Your task to perform on an android device: check the backup settings in the google photos Image 0: 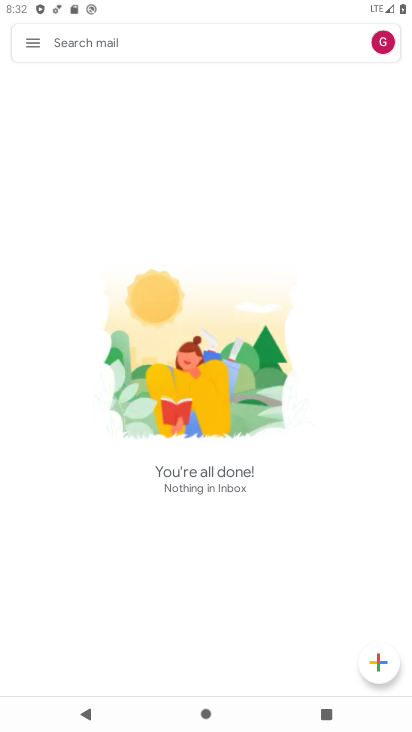
Step 0: press home button
Your task to perform on an android device: check the backup settings in the google photos Image 1: 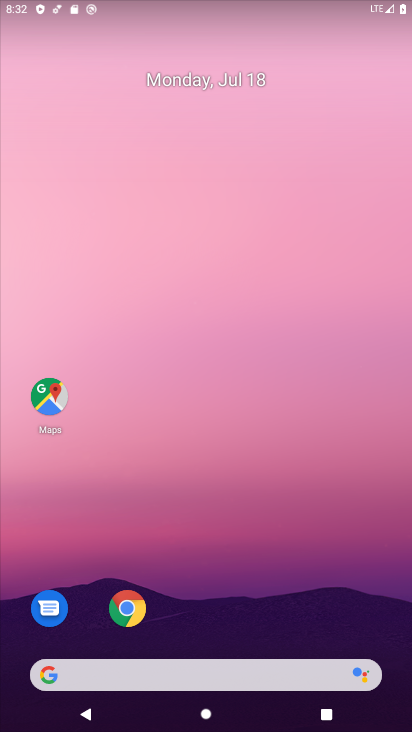
Step 1: drag from (253, 629) to (251, 188)
Your task to perform on an android device: check the backup settings in the google photos Image 2: 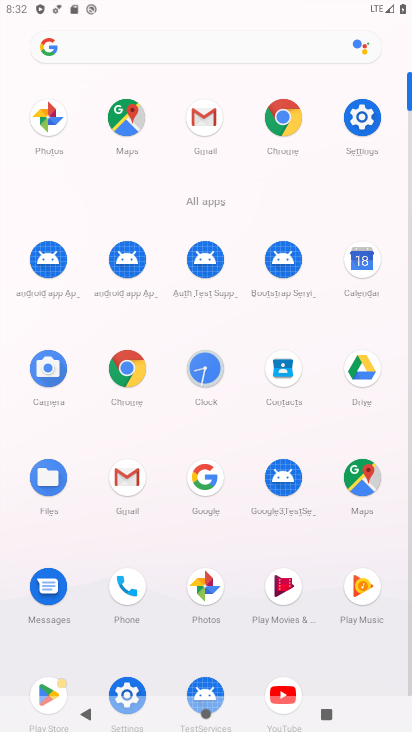
Step 2: click (49, 114)
Your task to perform on an android device: check the backup settings in the google photos Image 3: 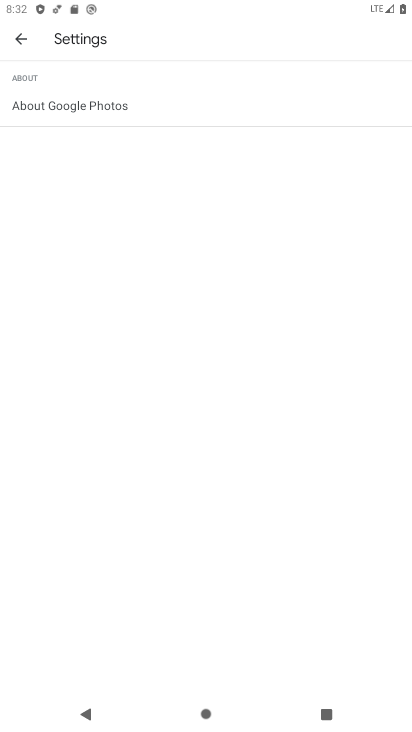
Step 3: click (21, 43)
Your task to perform on an android device: check the backup settings in the google photos Image 4: 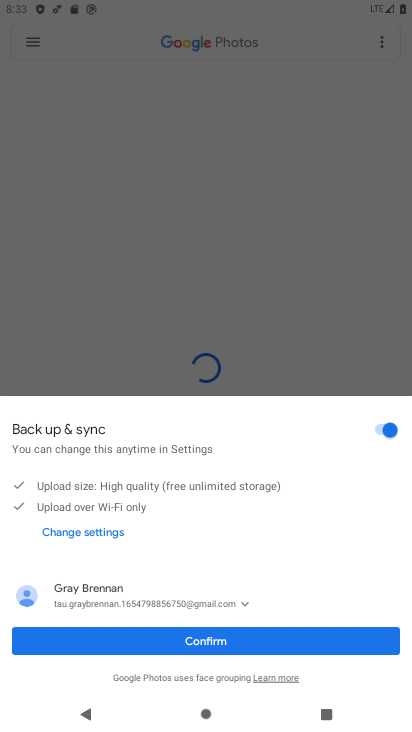
Step 4: click (240, 641)
Your task to perform on an android device: check the backup settings in the google photos Image 5: 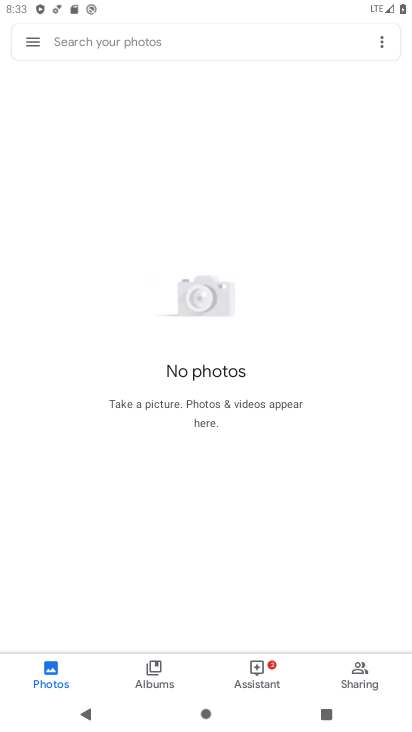
Step 5: click (29, 40)
Your task to perform on an android device: check the backup settings in the google photos Image 6: 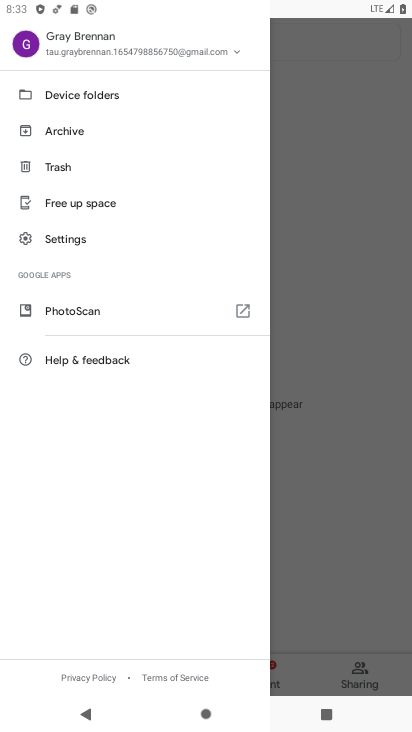
Step 6: click (104, 245)
Your task to perform on an android device: check the backup settings in the google photos Image 7: 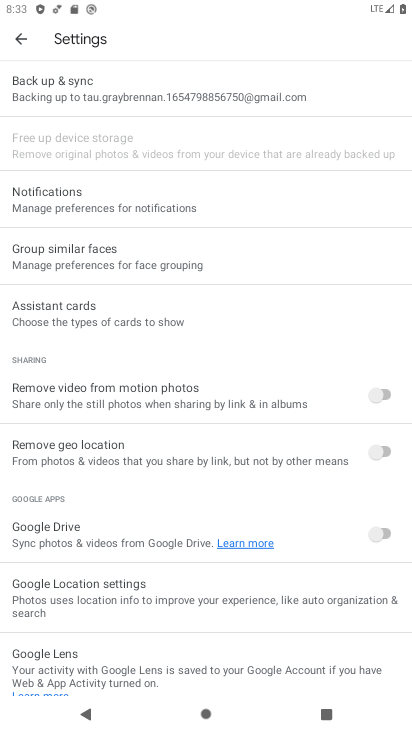
Step 7: click (90, 85)
Your task to perform on an android device: check the backup settings in the google photos Image 8: 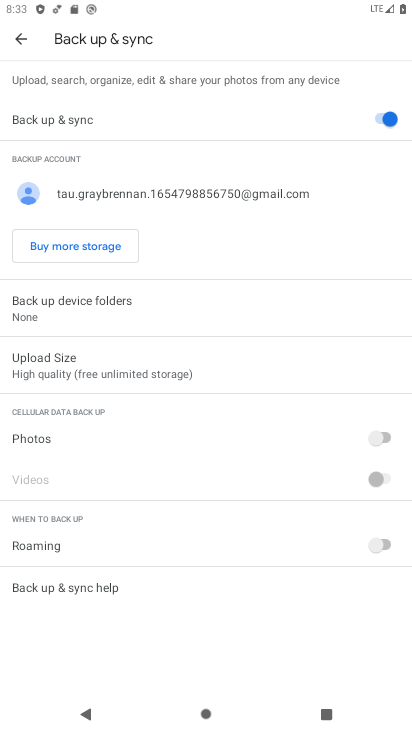
Step 8: task complete